Your task to perform on an android device: change text size in settings app Image 0: 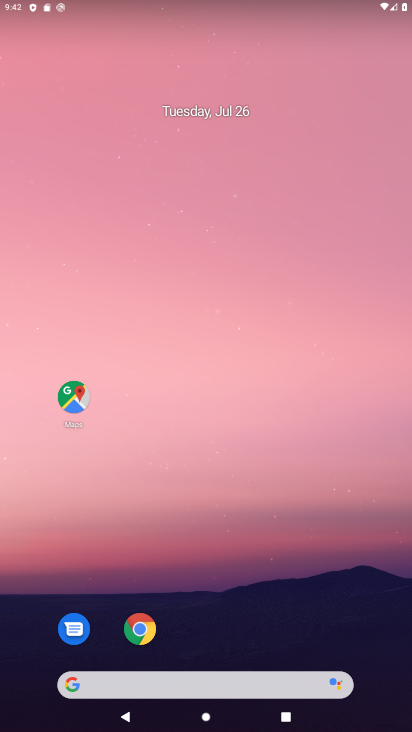
Step 0: drag from (300, 648) to (287, 253)
Your task to perform on an android device: change text size in settings app Image 1: 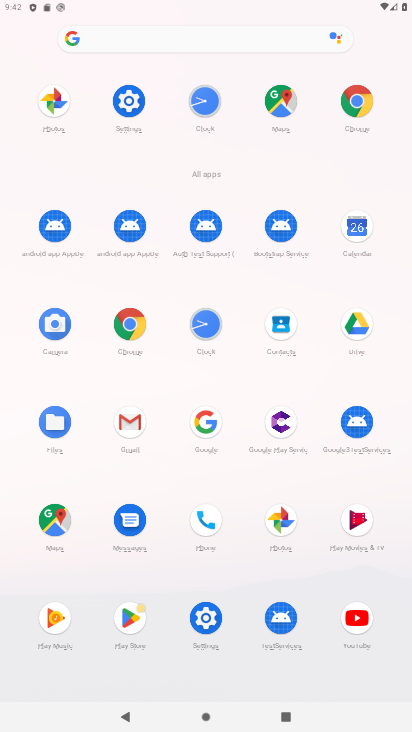
Step 1: click (116, 87)
Your task to perform on an android device: change text size in settings app Image 2: 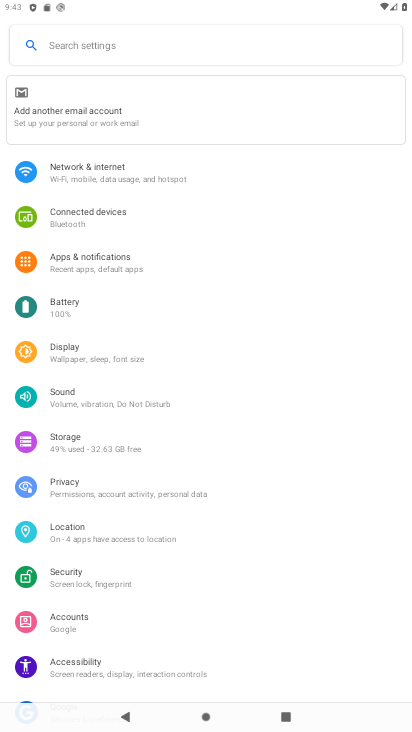
Step 2: click (122, 343)
Your task to perform on an android device: change text size in settings app Image 3: 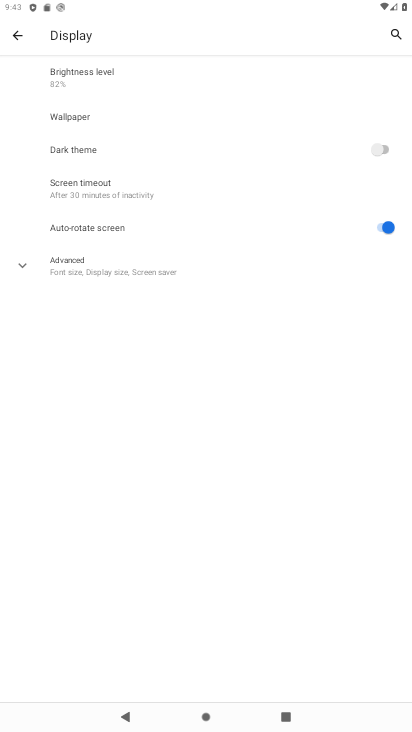
Step 3: task complete